Your task to perform on an android device: Open Google Chrome and open the bookmarks view Image 0: 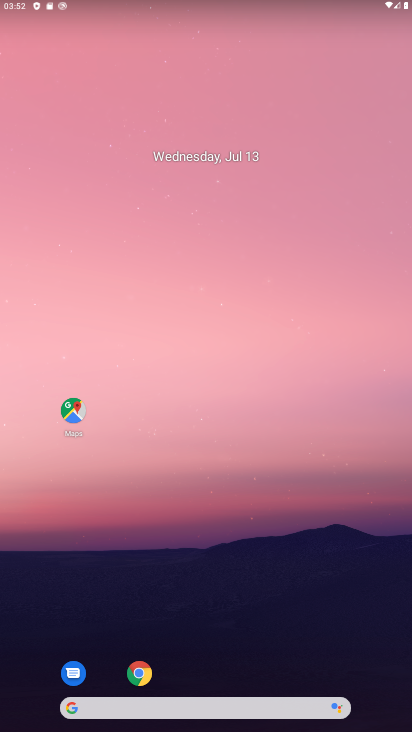
Step 0: drag from (230, 670) to (225, 66)
Your task to perform on an android device: Open Google Chrome and open the bookmarks view Image 1: 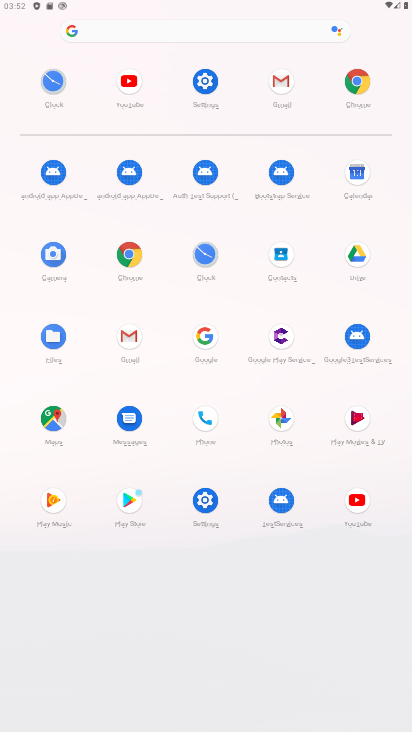
Step 1: click (128, 249)
Your task to perform on an android device: Open Google Chrome and open the bookmarks view Image 2: 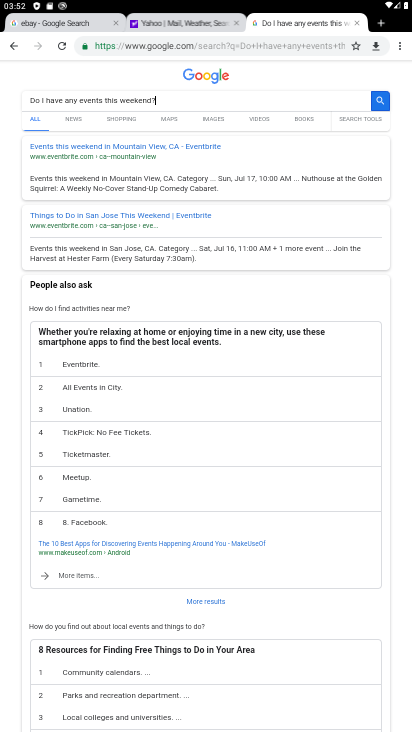
Step 2: task complete